Your task to perform on an android device: delete browsing data in the chrome app Image 0: 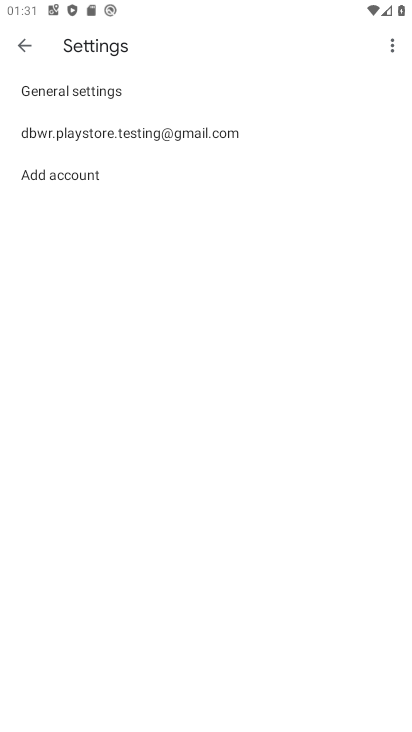
Step 0: press home button
Your task to perform on an android device: delete browsing data in the chrome app Image 1: 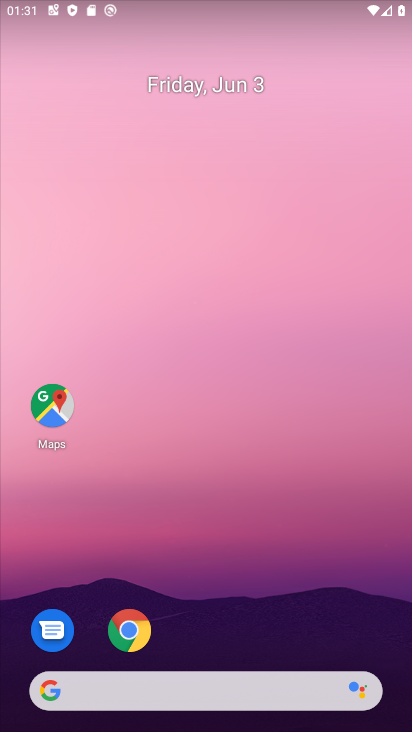
Step 1: click (145, 630)
Your task to perform on an android device: delete browsing data in the chrome app Image 2: 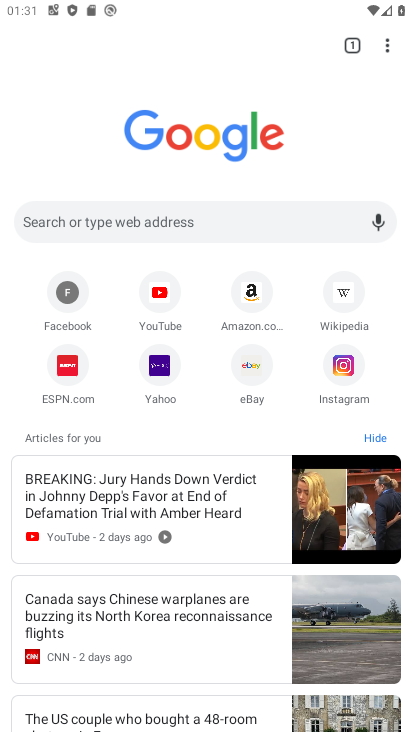
Step 2: click (392, 57)
Your task to perform on an android device: delete browsing data in the chrome app Image 3: 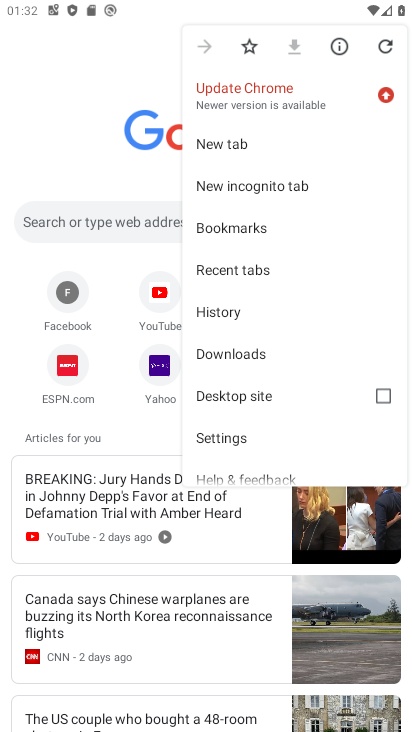
Step 3: click (240, 311)
Your task to perform on an android device: delete browsing data in the chrome app Image 4: 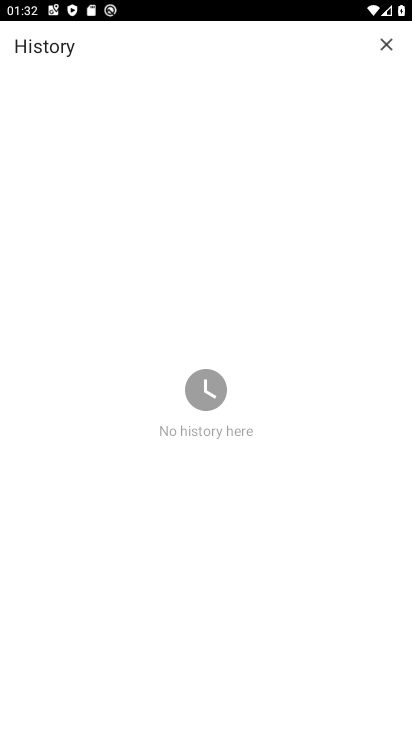
Step 4: task complete